Your task to perform on an android device: open app "Google Keep" (install if not already installed) Image 0: 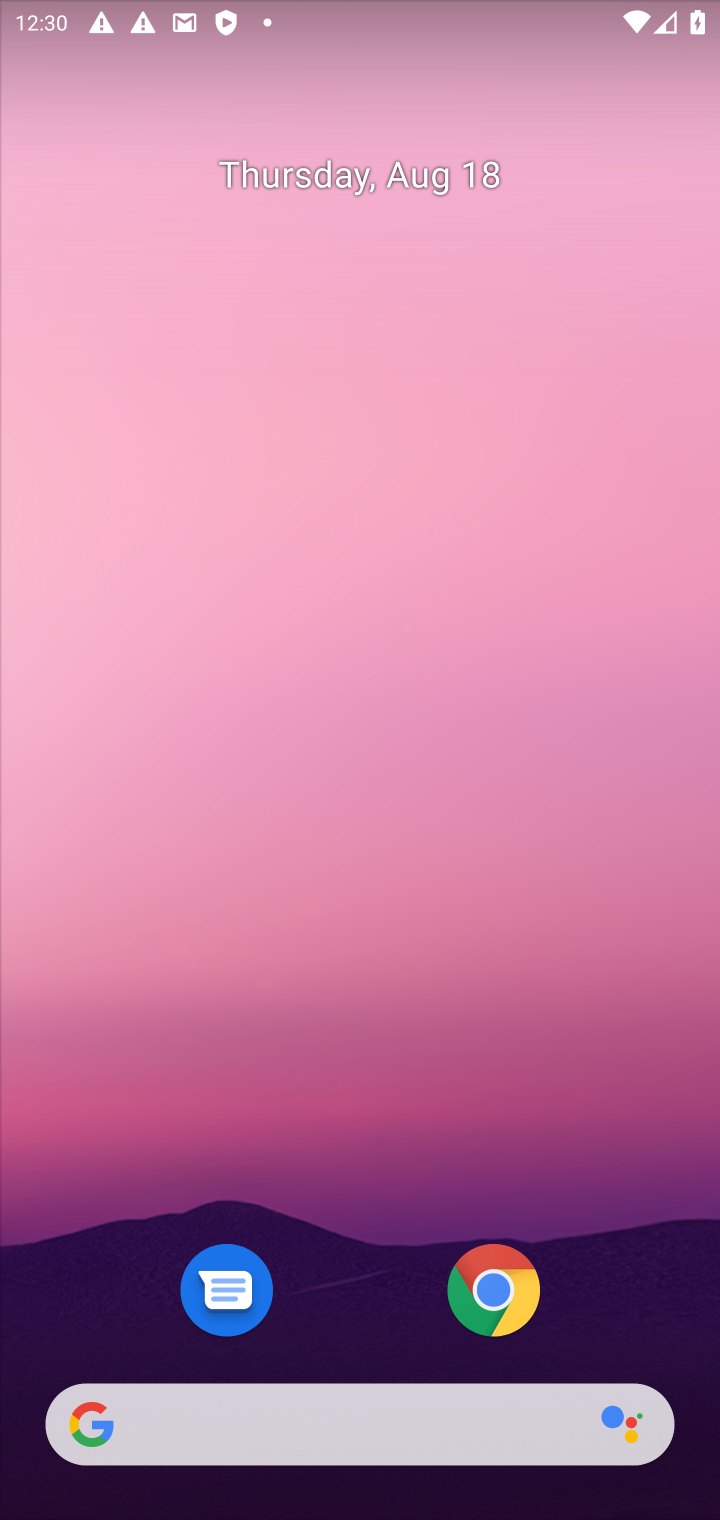
Step 0: drag from (626, 1317) to (474, 486)
Your task to perform on an android device: open app "Google Keep" (install if not already installed) Image 1: 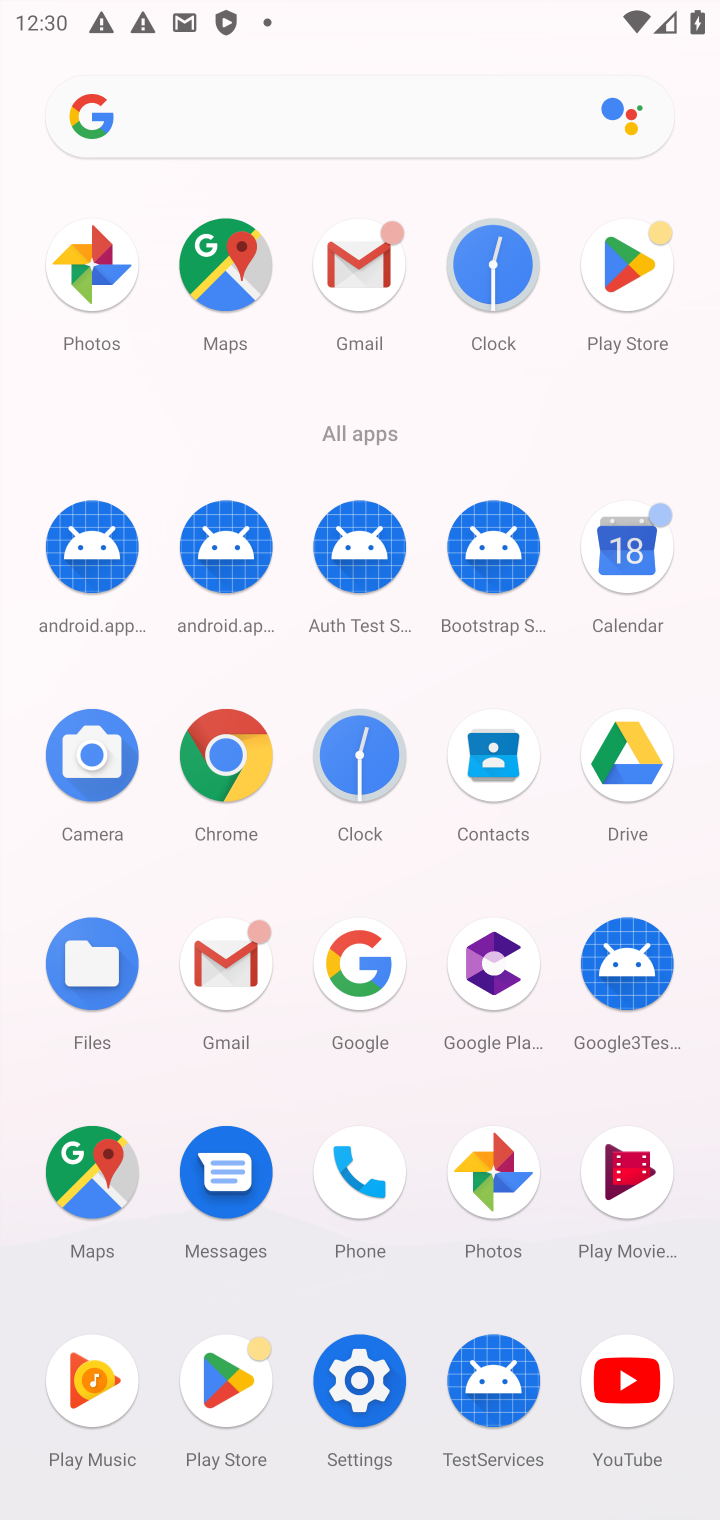
Step 1: click (203, 1379)
Your task to perform on an android device: open app "Google Keep" (install if not already installed) Image 2: 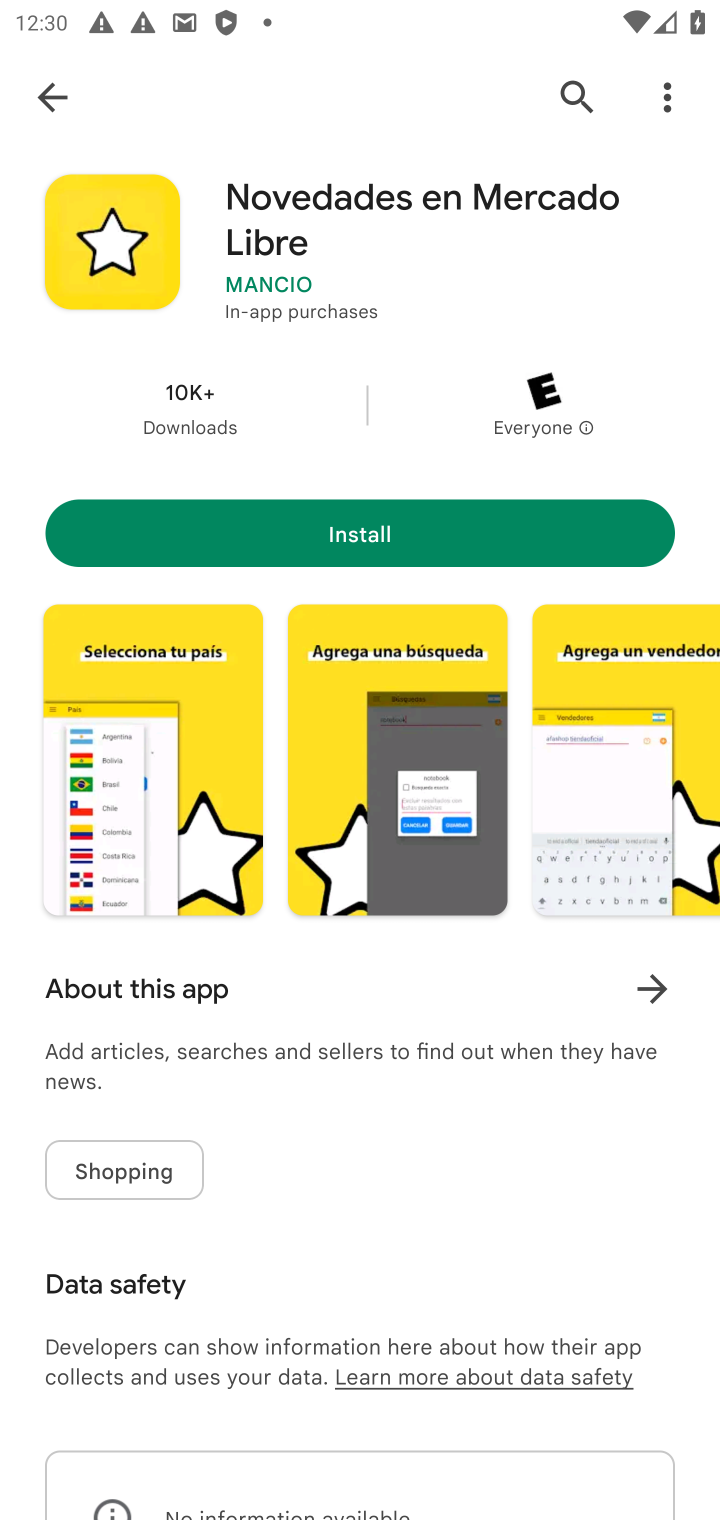
Step 2: click (576, 98)
Your task to perform on an android device: open app "Google Keep" (install if not already installed) Image 3: 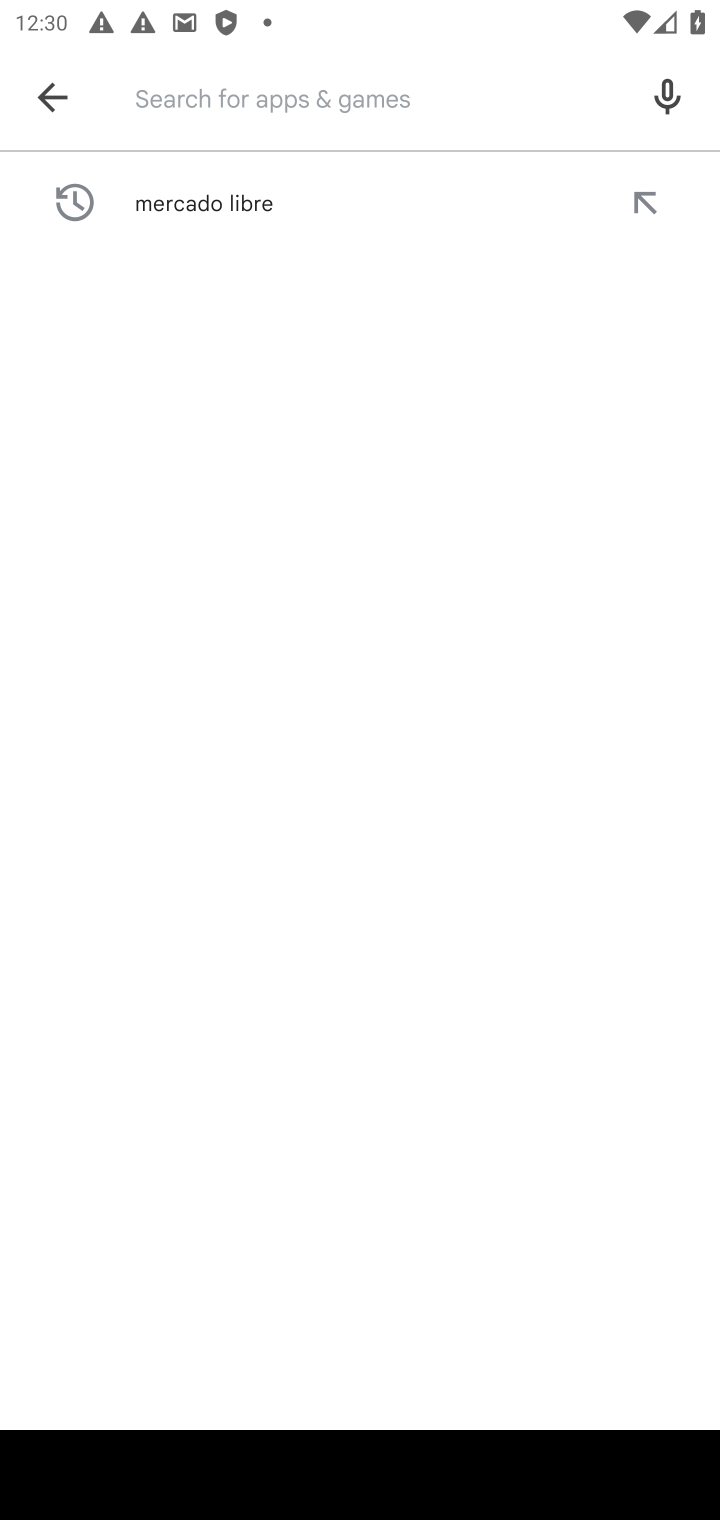
Step 3: type "google keep"
Your task to perform on an android device: open app "Google Keep" (install if not already installed) Image 4: 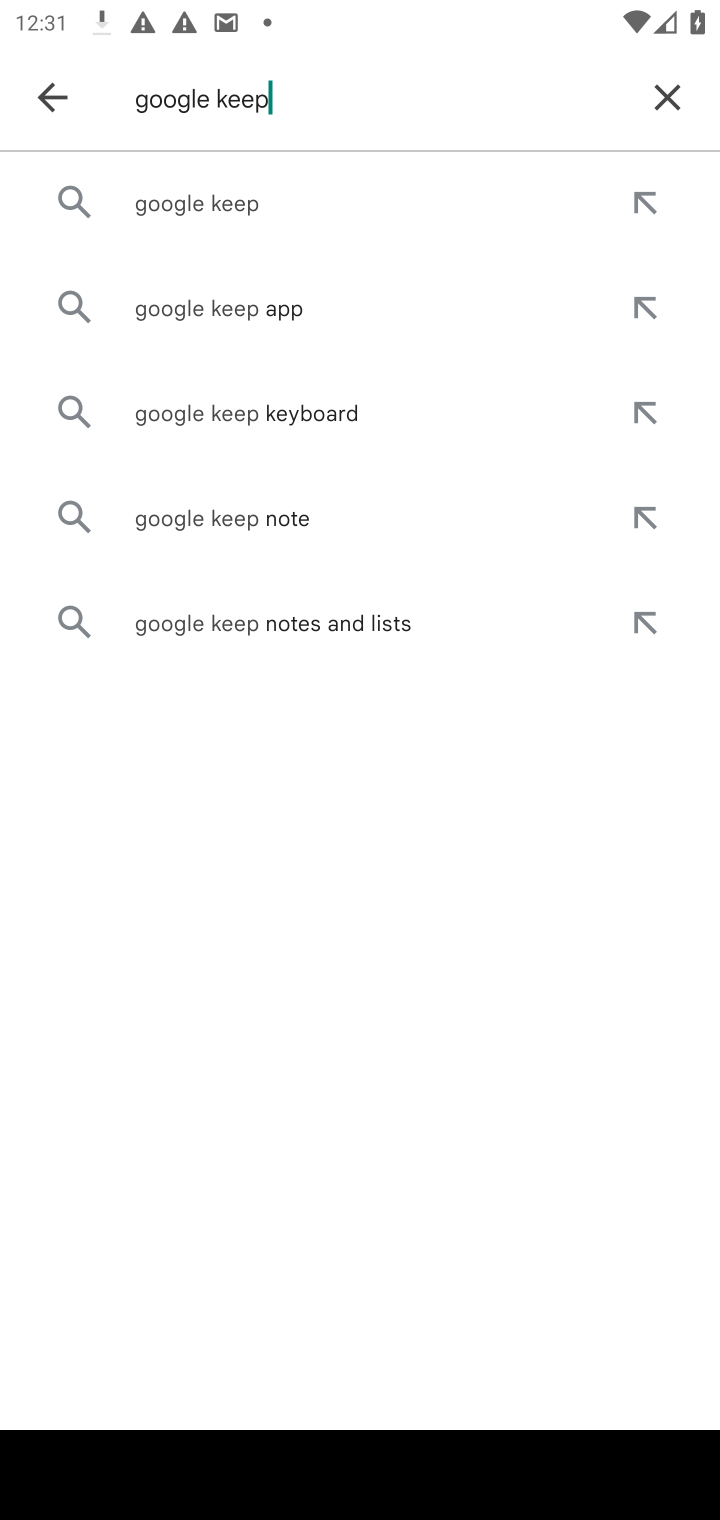
Step 4: click (209, 196)
Your task to perform on an android device: open app "Google Keep" (install if not already installed) Image 5: 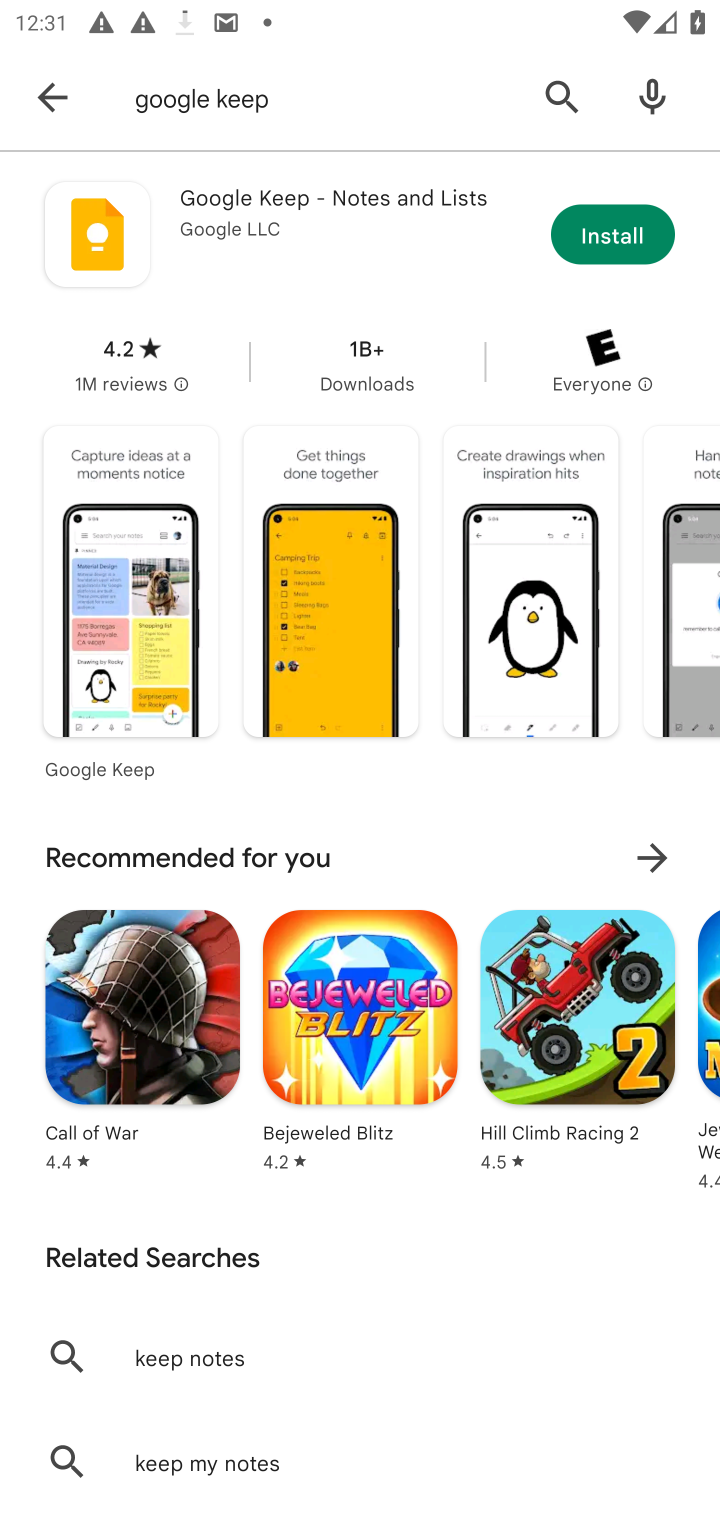
Step 5: click (610, 231)
Your task to perform on an android device: open app "Google Keep" (install if not already installed) Image 6: 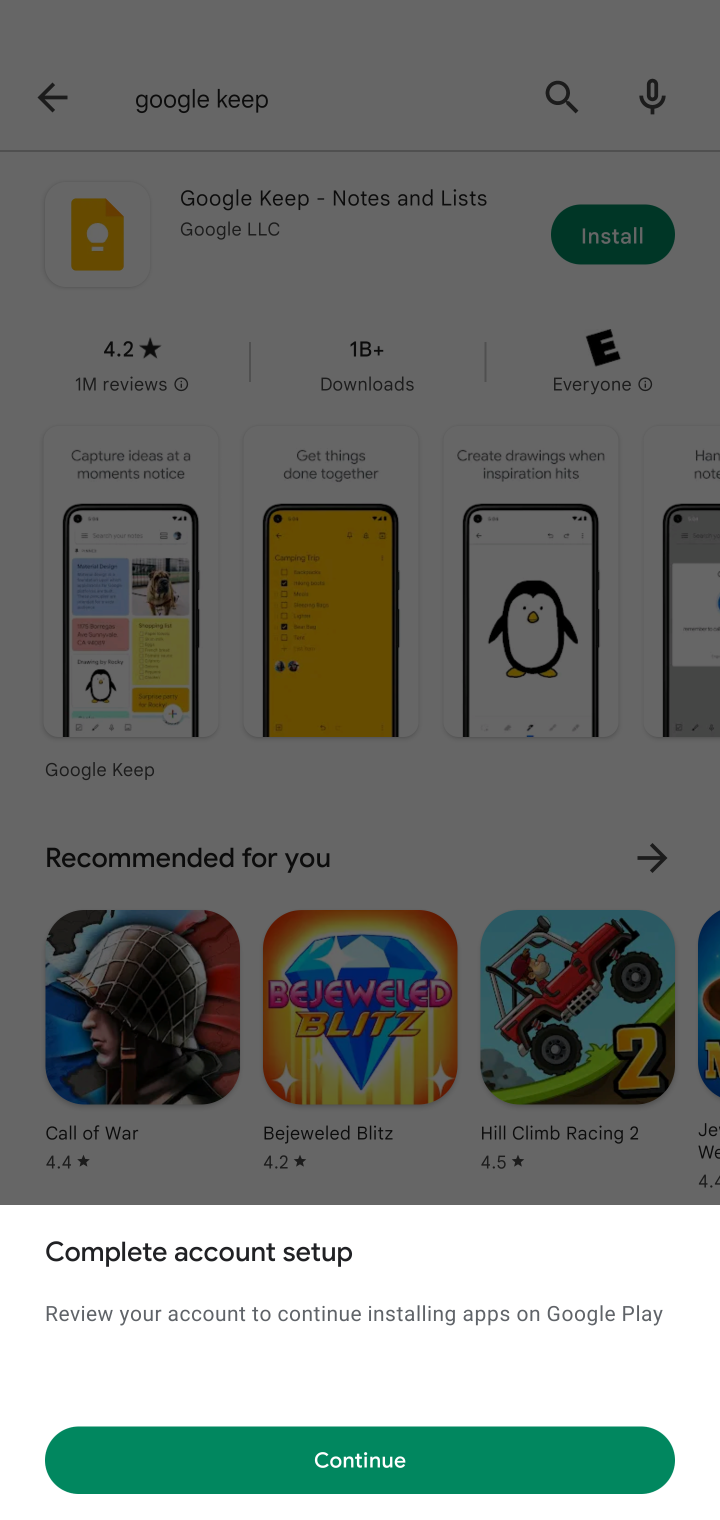
Step 6: click (535, 1441)
Your task to perform on an android device: open app "Google Keep" (install if not already installed) Image 7: 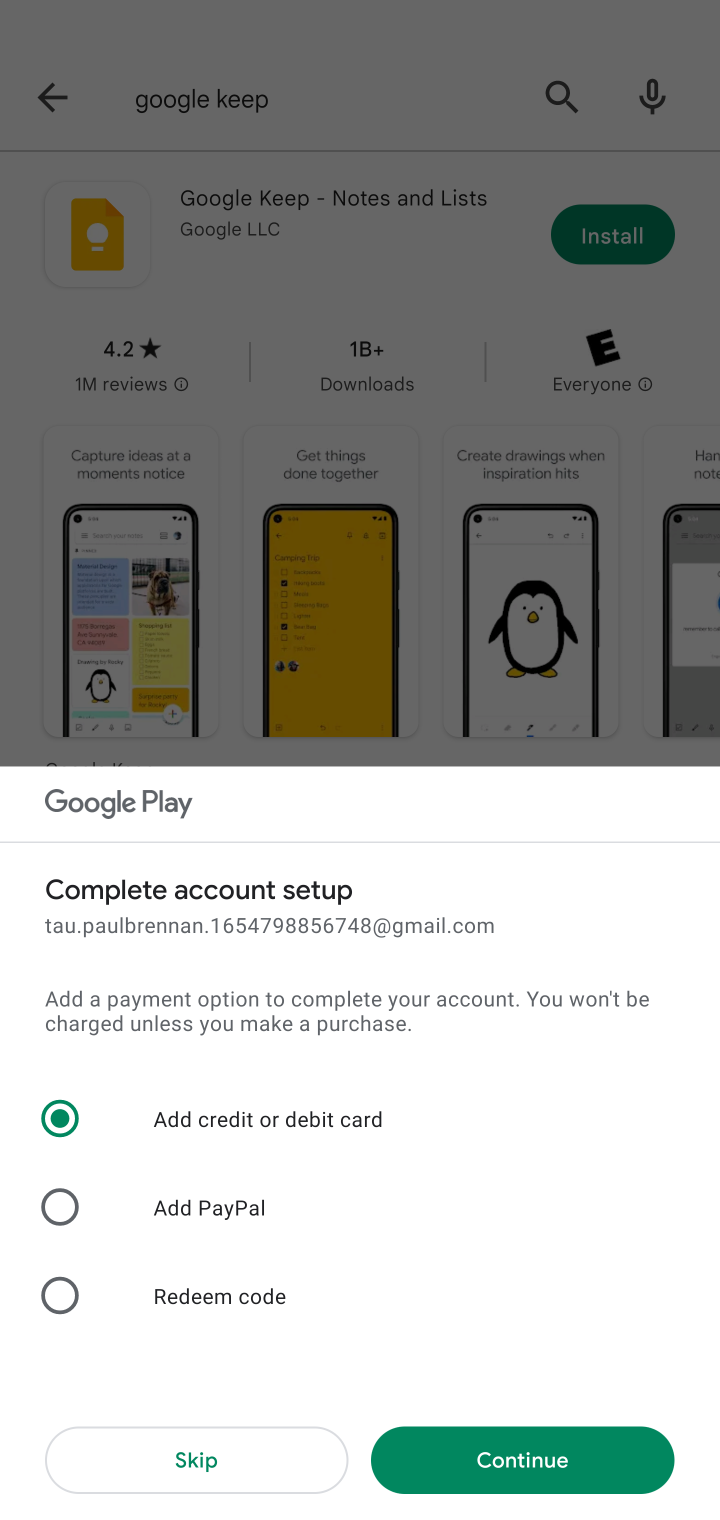
Step 7: click (273, 1473)
Your task to perform on an android device: open app "Google Keep" (install if not already installed) Image 8: 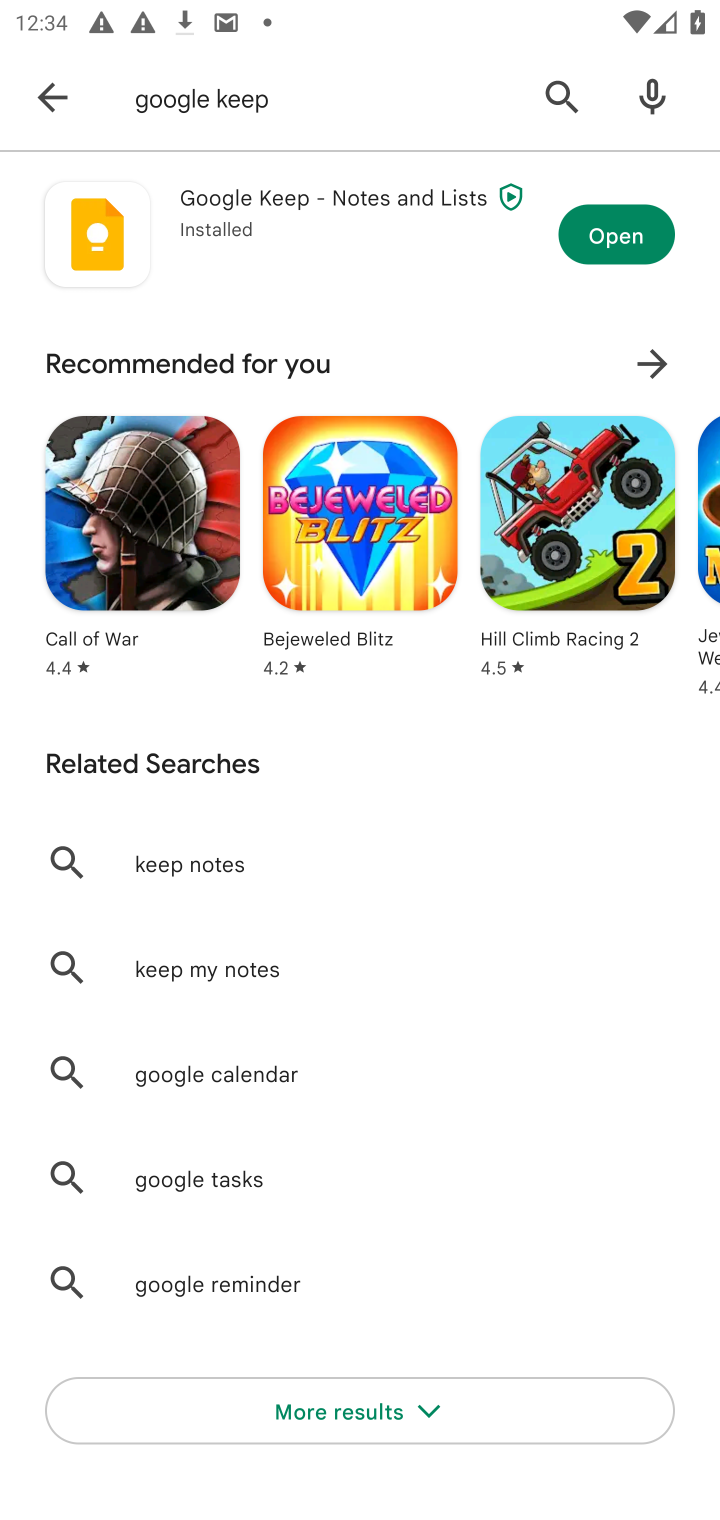
Step 8: click (596, 245)
Your task to perform on an android device: open app "Google Keep" (install if not already installed) Image 9: 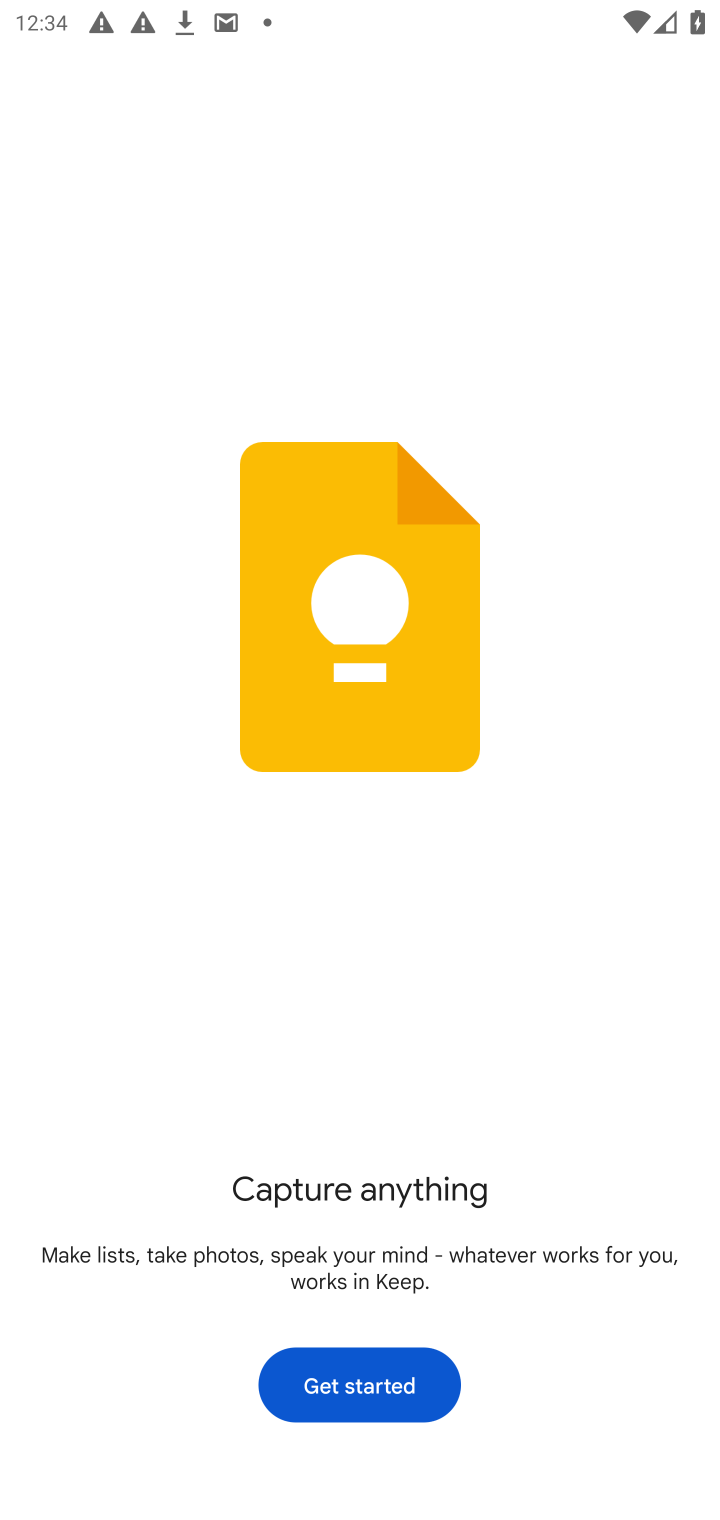
Step 9: task complete